Your task to perform on an android device: Go to Wikipedia Image 0: 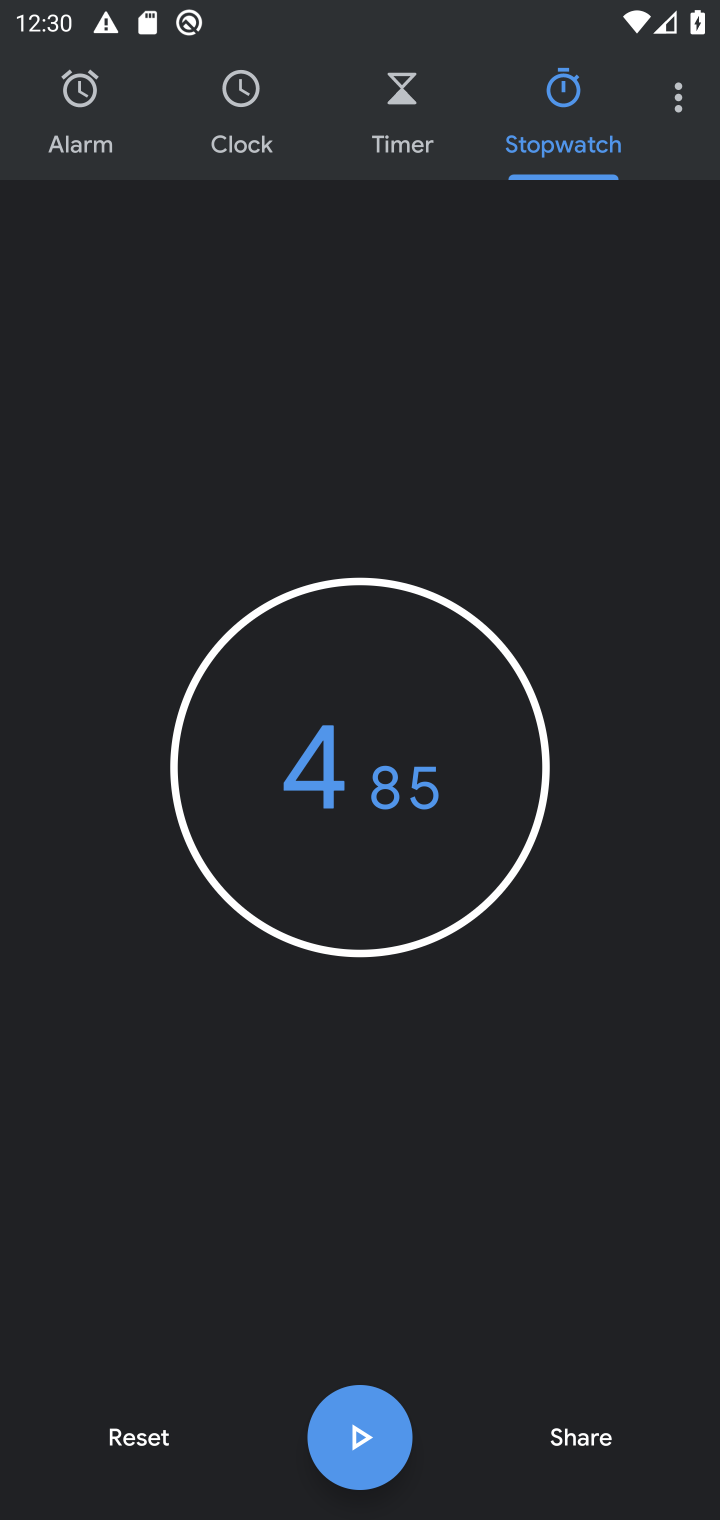
Step 0: press home button
Your task to perform on an android device: Go to Wikipedia Image 1: 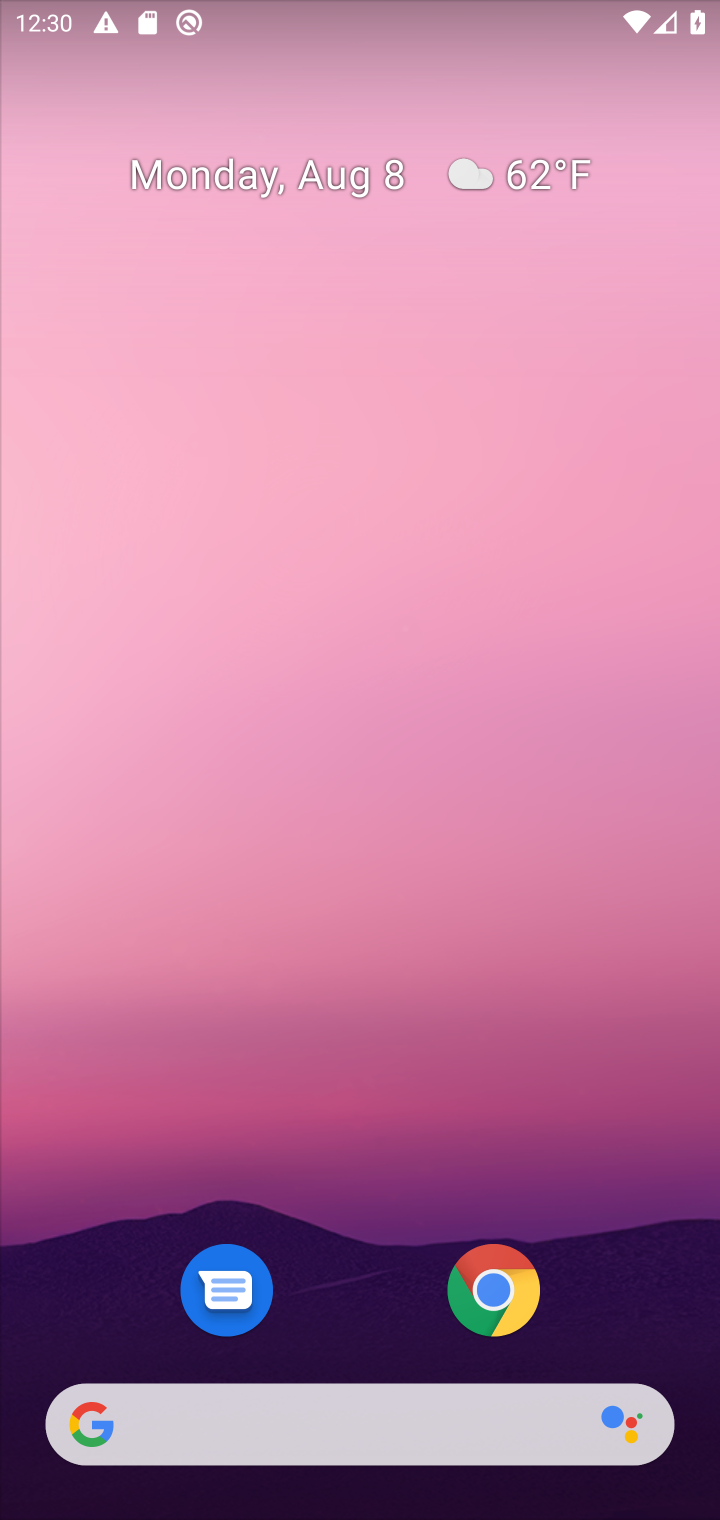
Step 1: drag from (347, 1130) to (436, 222)
Your task to perform on an android device: Go to Wikipedia Image 2: 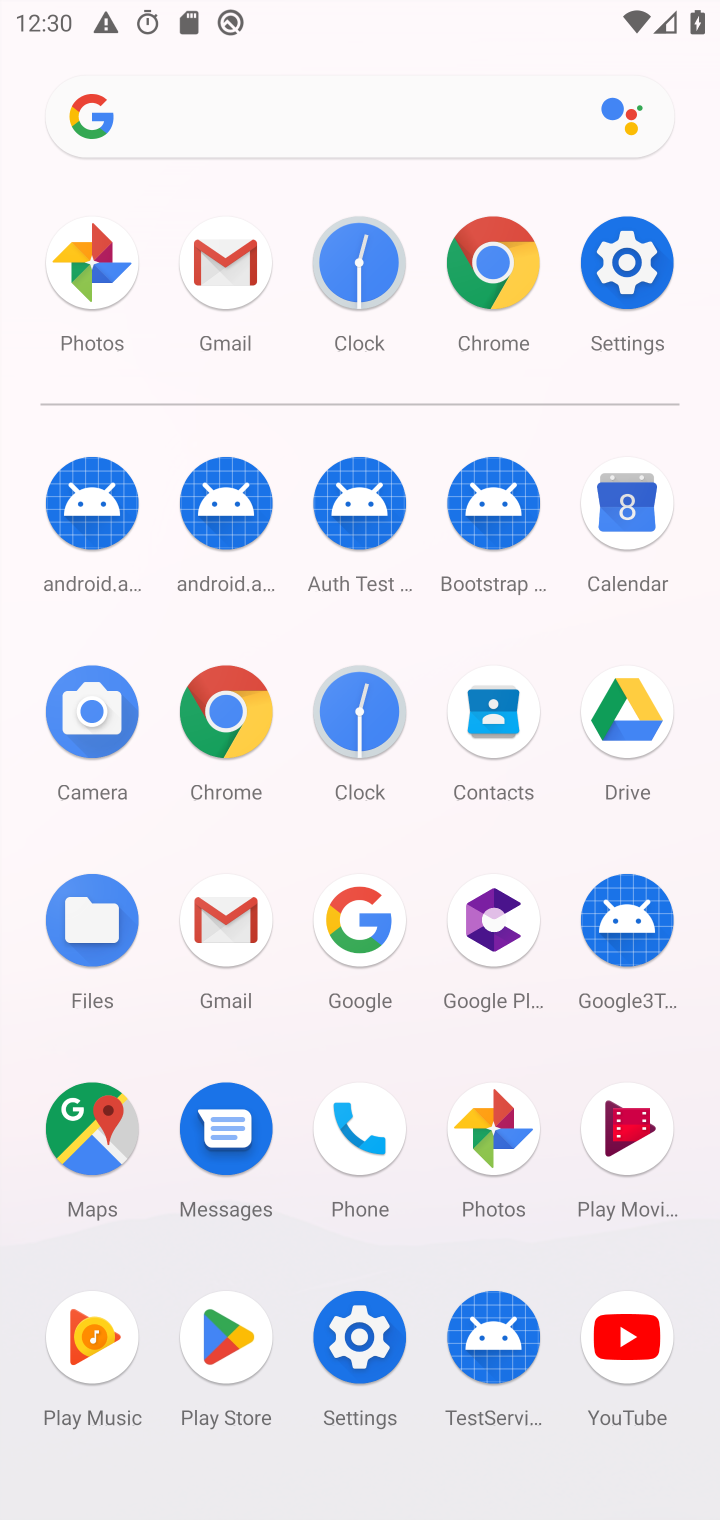
Step 2: drag from (359, 1076) to (402, 42)
Your task to perform on an android device: Go to Wikipedia Image 3: 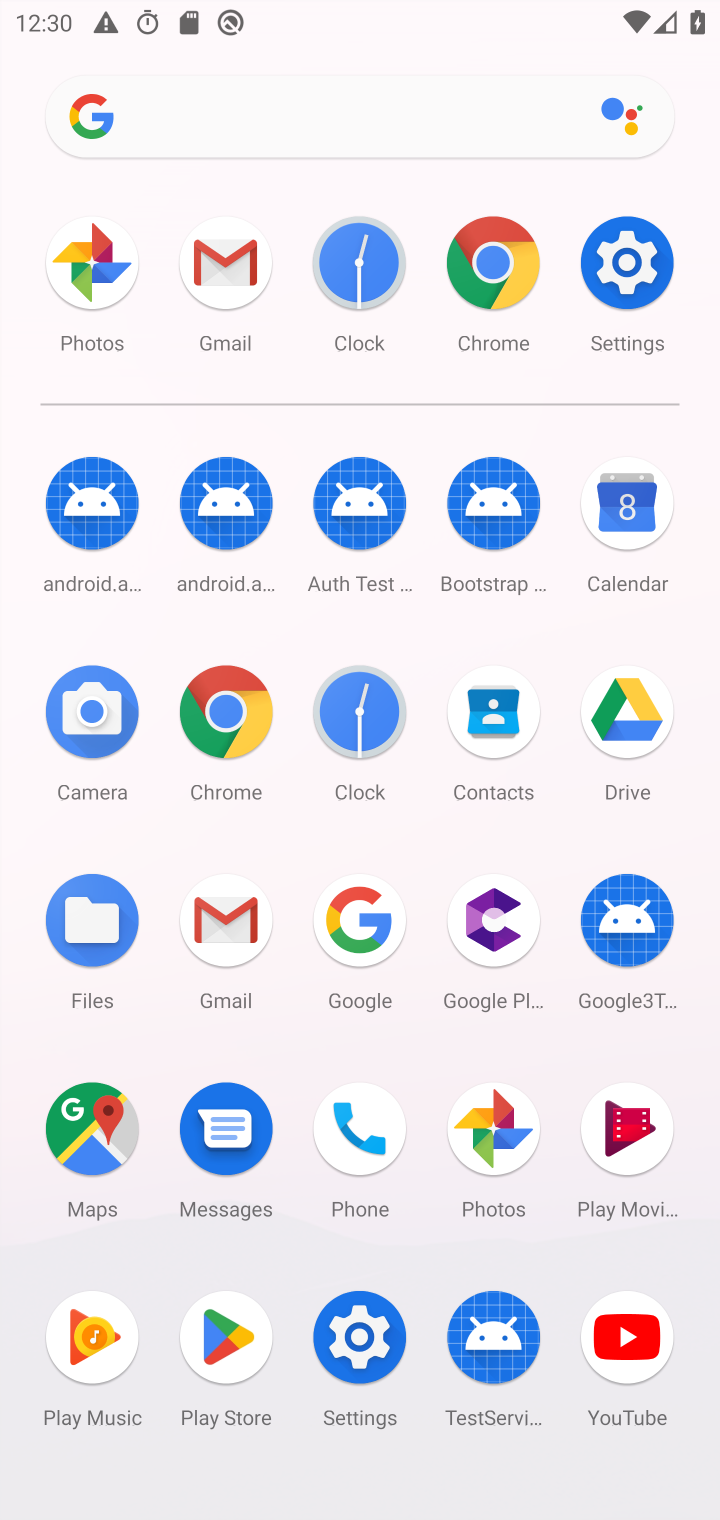
Step 3: click (243, 738)
Your task to perform on an android device: Go to Wikipedia Image 4: 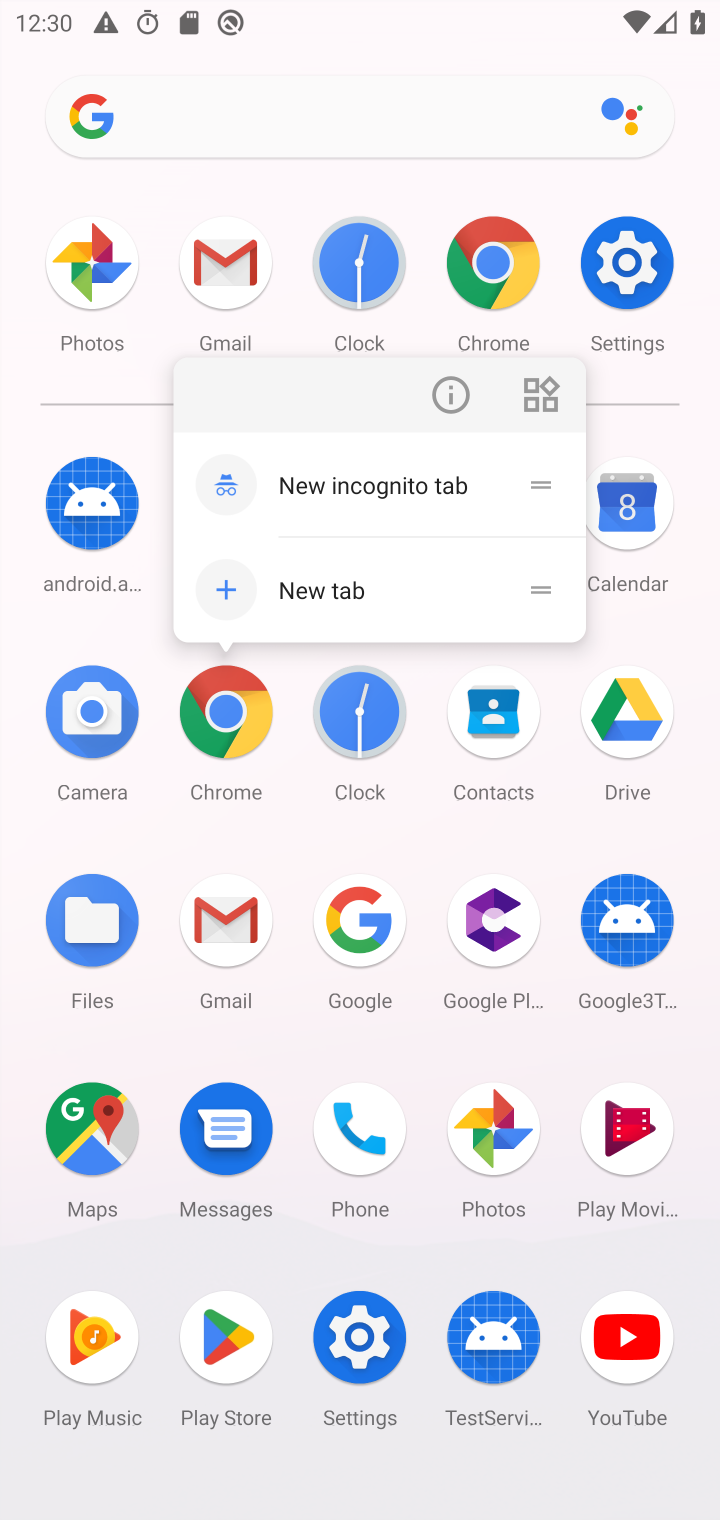
Step 4: click (243, 738)
Your task to perform on an android device: Go to Wikipedia Image 5: 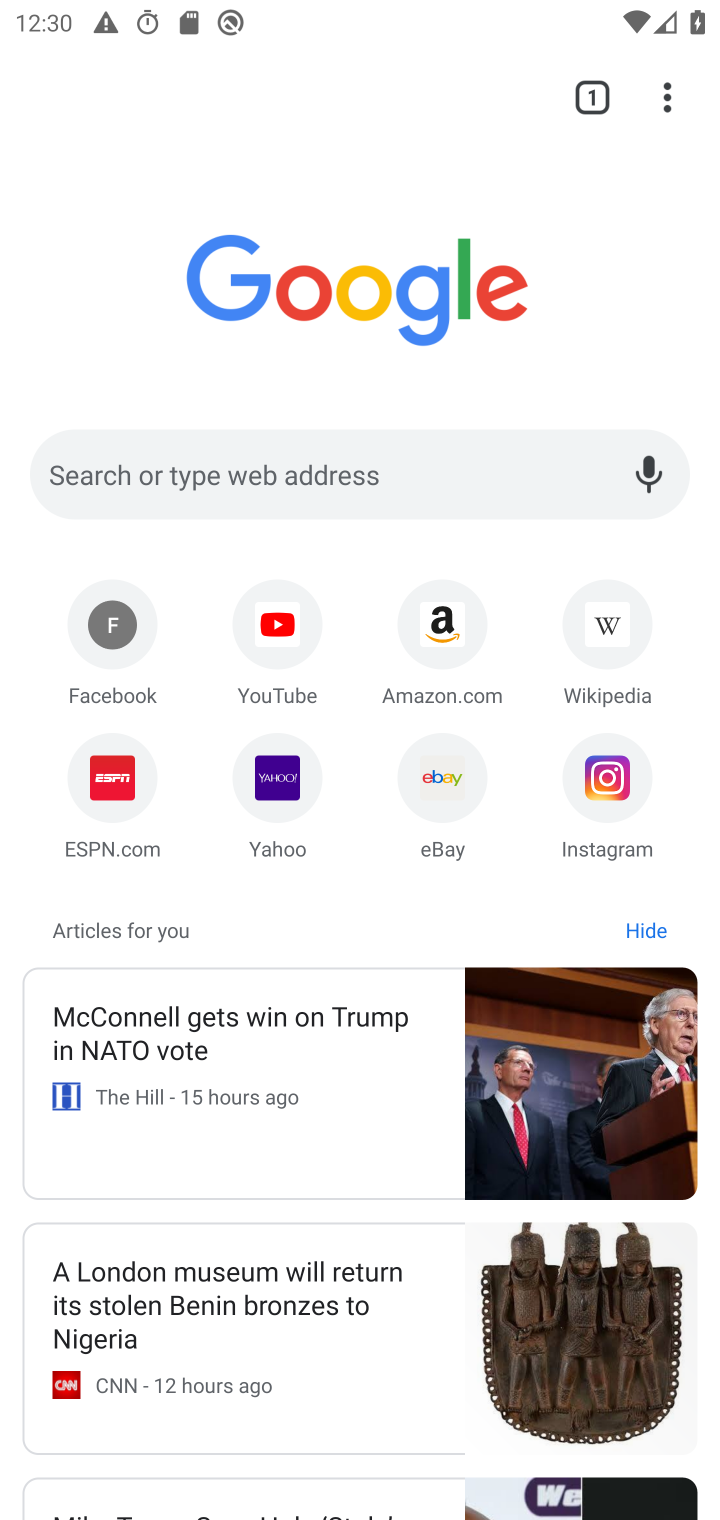
Step 5: click (611, 629)
Your task to perform on an android device: Go to Wikipedia Image 6: 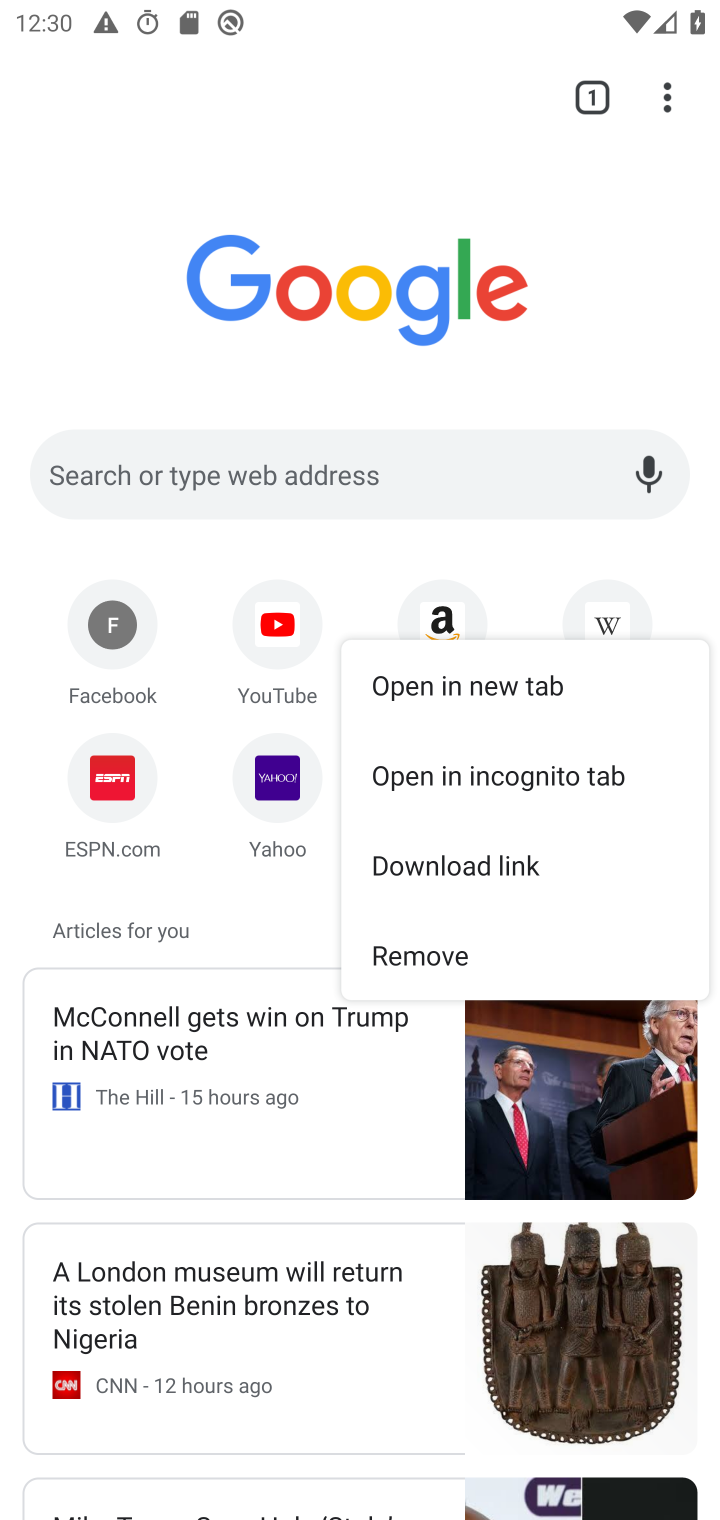
Step 6: click (596, 607)
Your task to perform on an android device: Go to Wikipedia Image 7: 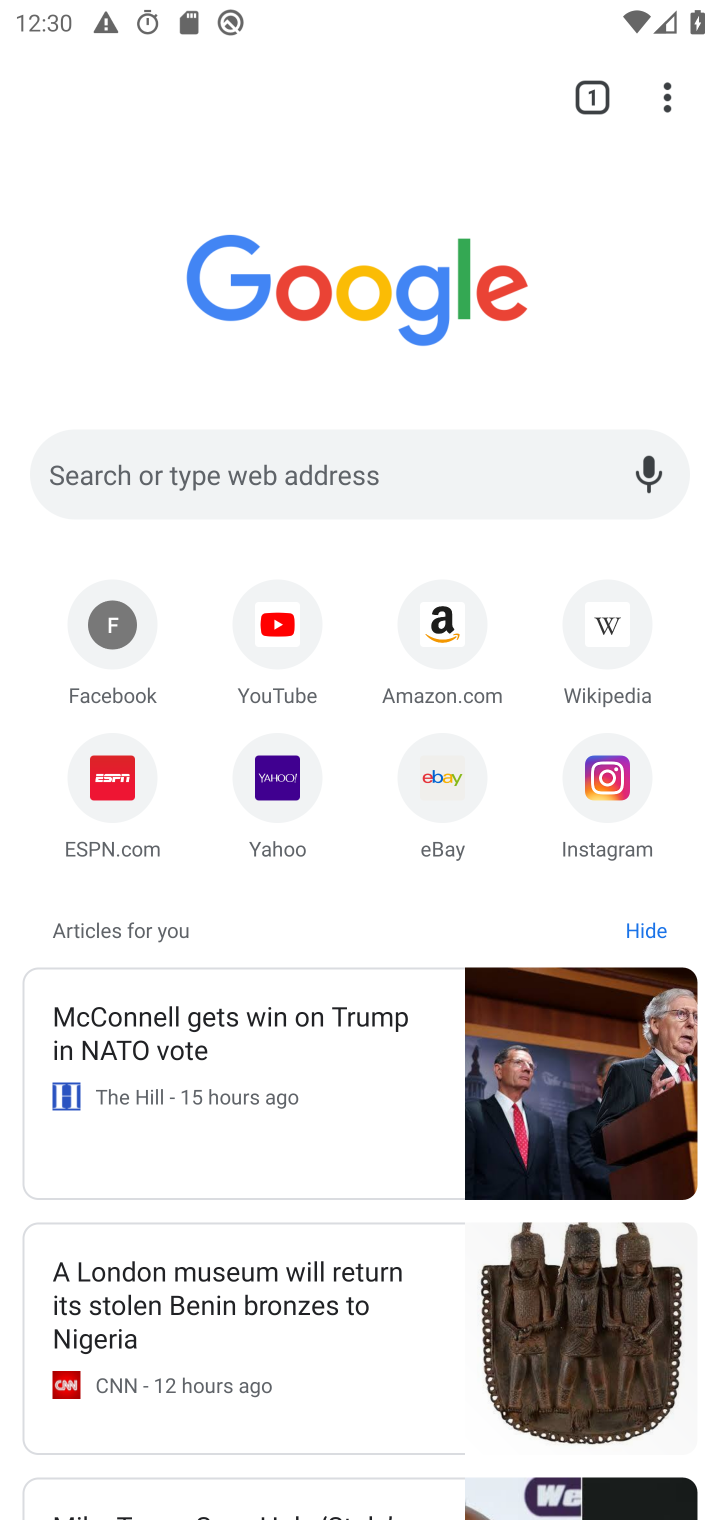
Step 7: click (601, 628)
Your task to perform on an android device: Go to Wikipedia Image 8: 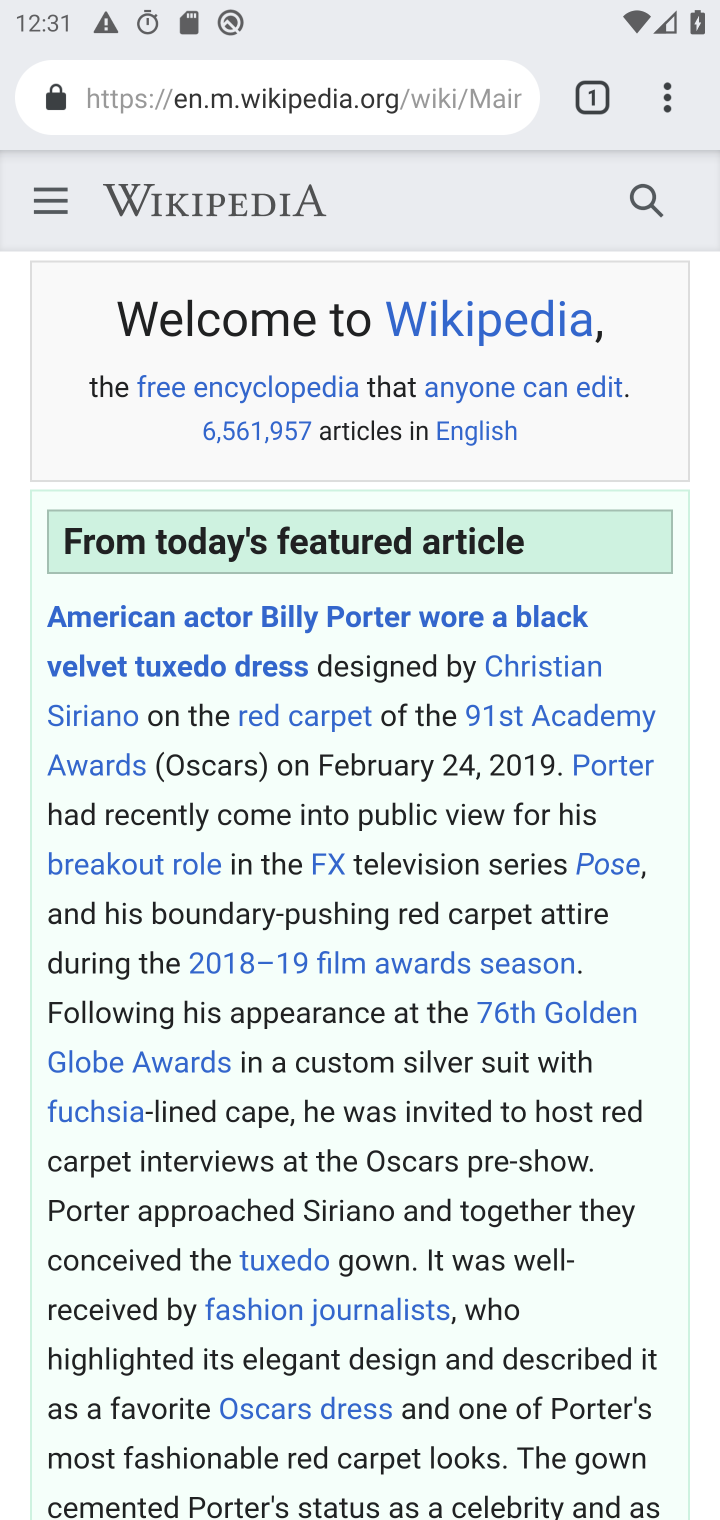
Step 8: task complete